Your task to perform on an android device: make emails show in primary in the gmail app Image 0: 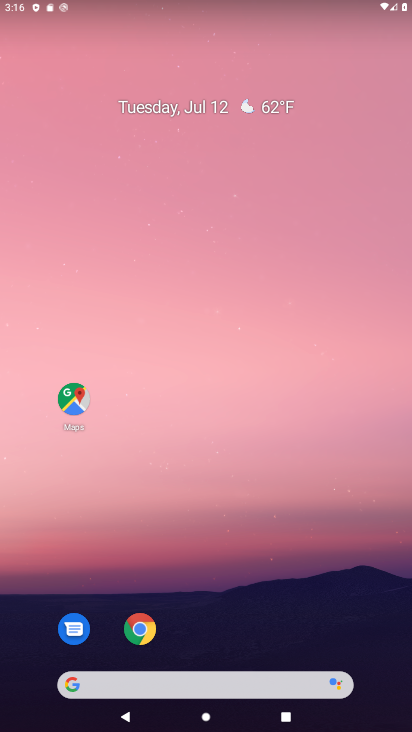
Step 0: drag from (217, 656) to (203, 8)
Your task to perform on an android device: make emails show in primary in the gmail app Image 1: 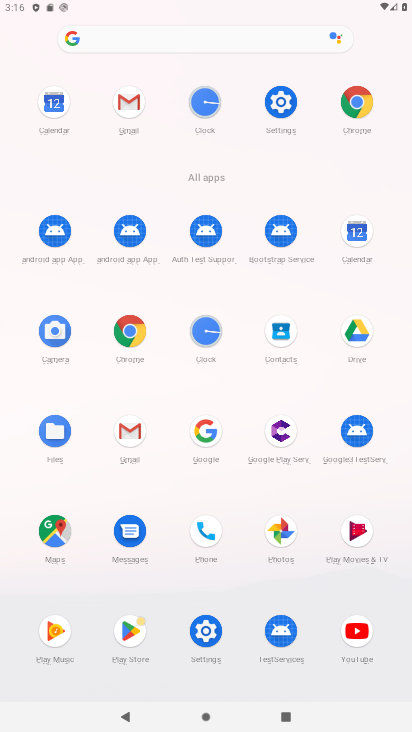
Step 1: click (120, 444)
Your task to perform on an android device: make emails show in primary in the gmail app Image 2: 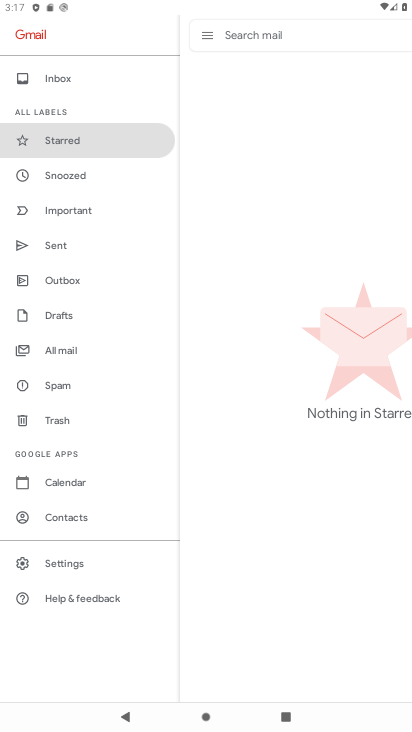
Step 2: click (60, 567)
Your task to perform on an android device: make emails show in primary in the gmail app Image 3: 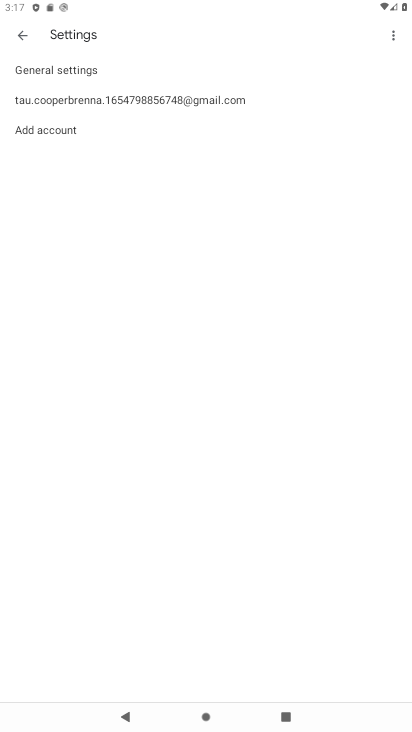
Step 3: click (57, 110)
Your task to perform on an android device: make emails show in primary in the gmail app Image 4: 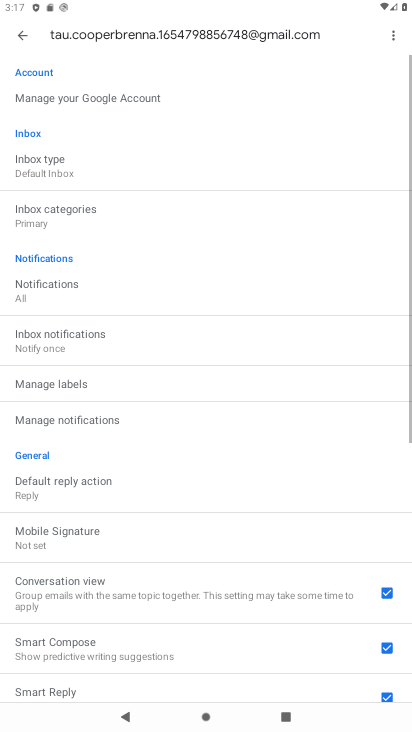
Step 4: click (52, 175)
Your task to perform on an android device: make emails show in primary in the gmail app Image 5: 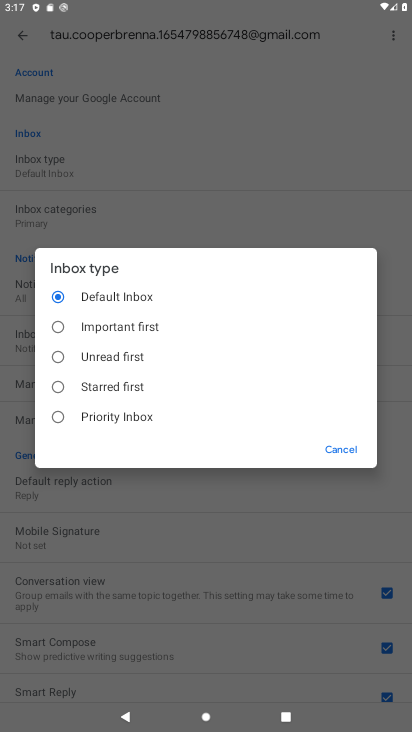
Step 5: click (90, 416)
Your task to perform on an android device: make emails show in primary in the gmail app Image 6: 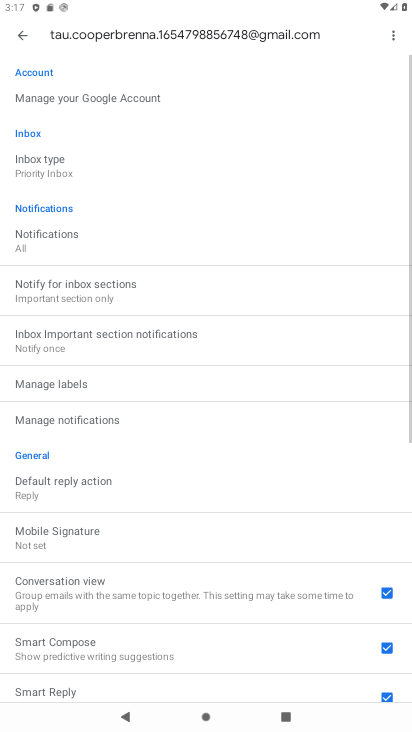
Step 6: drag from (39, 237) to (66, 469)
Your task to perform on an android device: make emails show in primary in the gmail app Image 7: 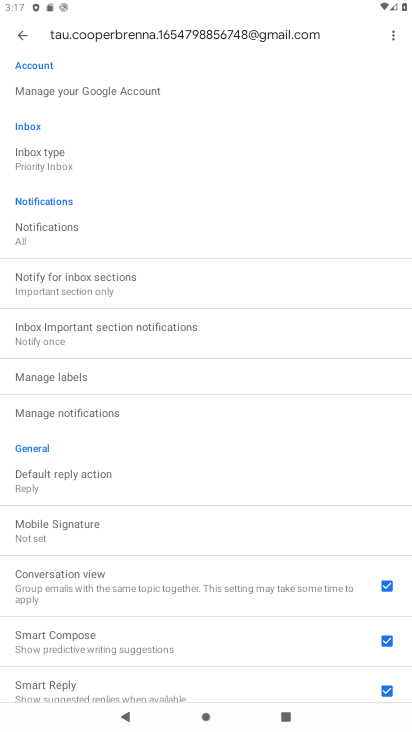
Step 7: click (77, 277)
Your task to perform on an android device: make emails show in primary in the gmail app Image 8: 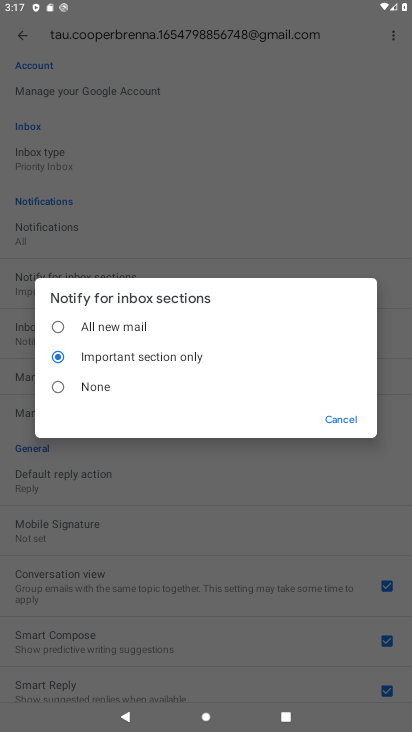
Step 8: click (83, 195)
Your task to perform on an android device: make emails show in primary in the gmail app Image 9: 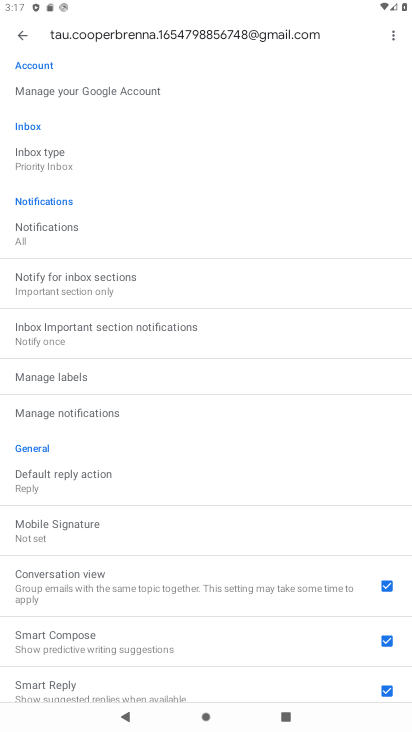
Step 9: click (40, 160)
Your task to perform on an android device: make emails show in primary in the gmail app Image 10: 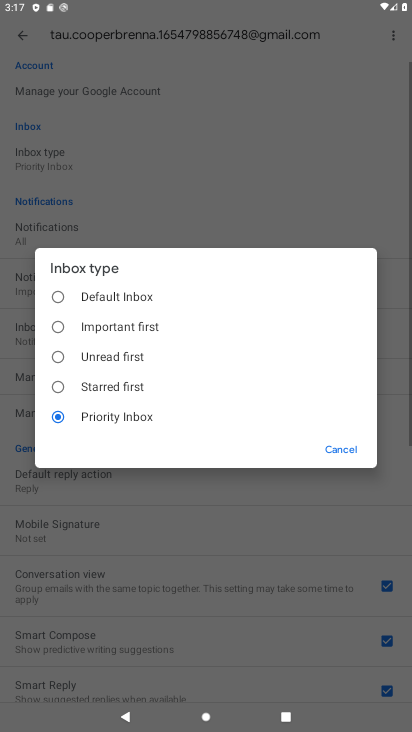
Step 10: click (112, 287)
Your task to perform on an android device: make emails show in primary in the gmail app Image 11: 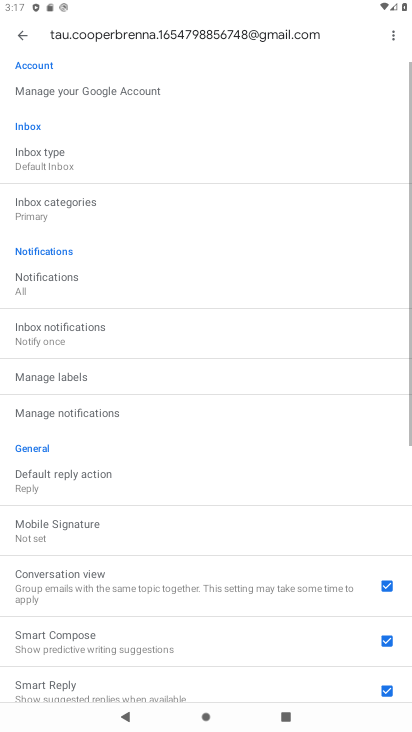
Step 11: click (39, 207)
Your task to perform on an android device: make emails show in primary in the gmail app Image 12: 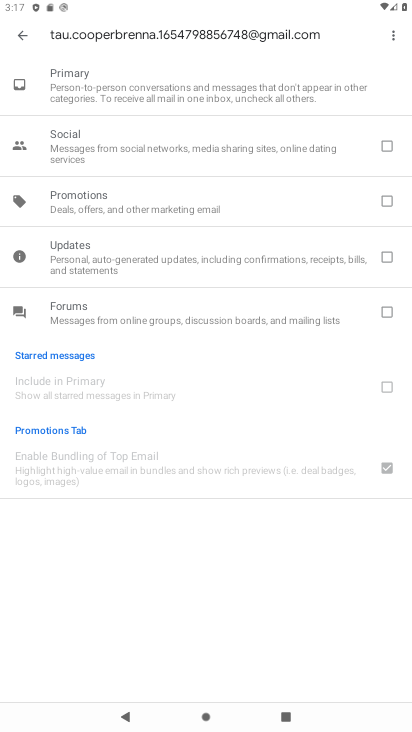
Step 12: click (62, 100)
Your task to perform on an android device: make emails show in primary in the gmail app Image 13: 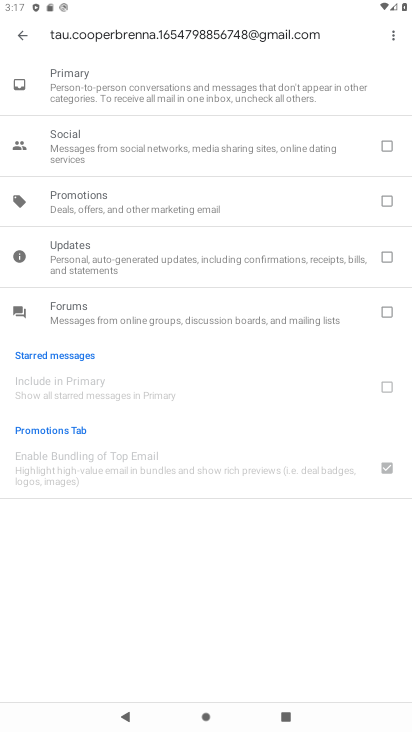
Step 13: click (99, 138)
Your task to perform on an android device: make emails show in primary in the gmail app Image 14: 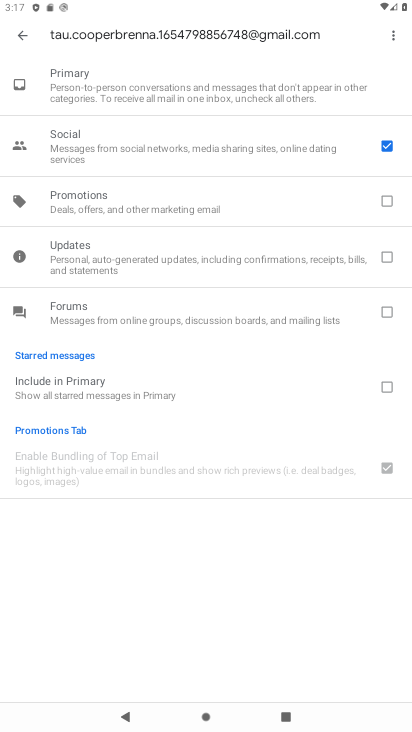
Step 14: click (115, 184)
Your task to perform on an android device: make emails show in primary in the gmail app Image 15: 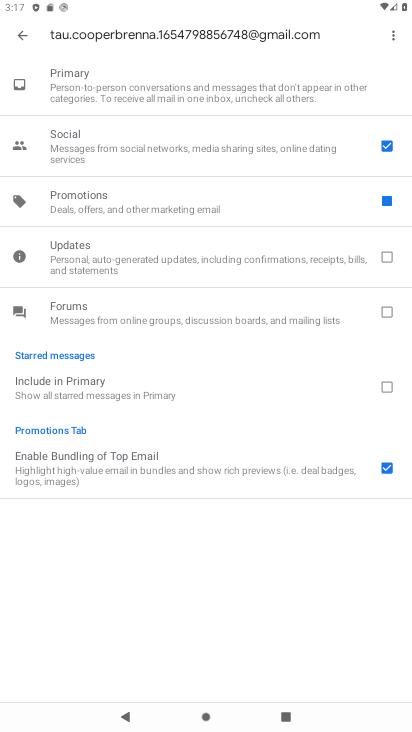
Step 15: click (115, 265)
Your task to perform on an android device: make emails show in primary in the gmail app Image 16: 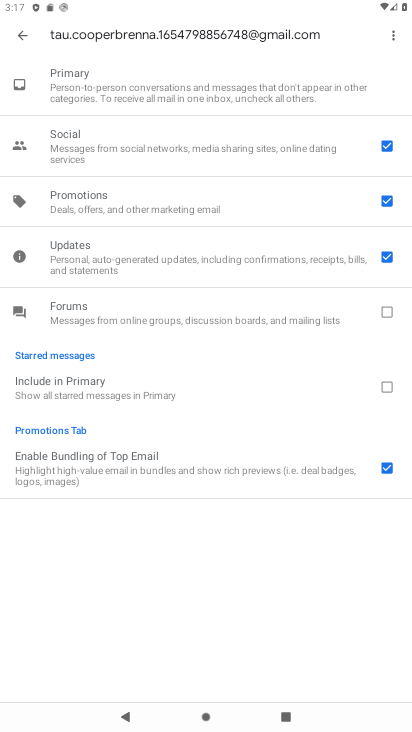
Step 16: click (13, 31)
Your task to perform on an android device: make emails show in primary in the gmail app Image 17: 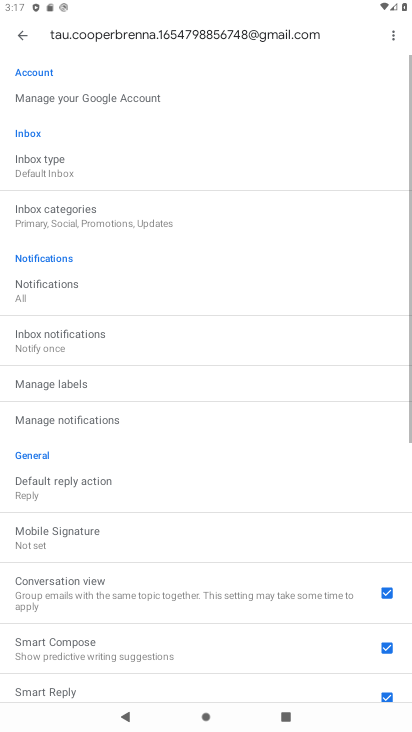
Step 17: click (11, 32)
Your task to perform on an android device: make emails show in primary in the gmail app Image 18: 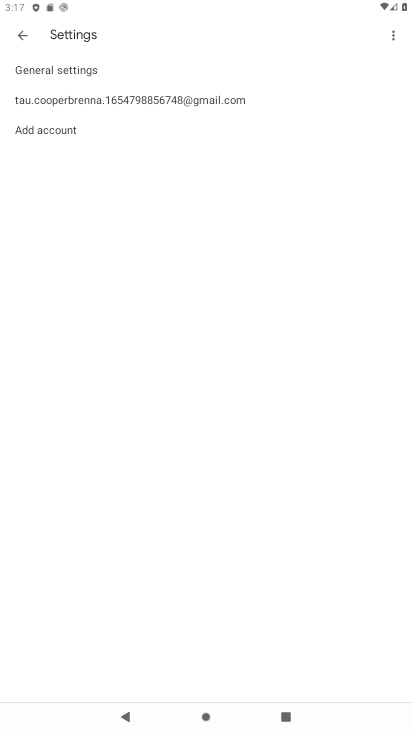
Step 18: click (25, 33)
Your task to perform on an android device: make emails show in primary in the gmail app Image 19: 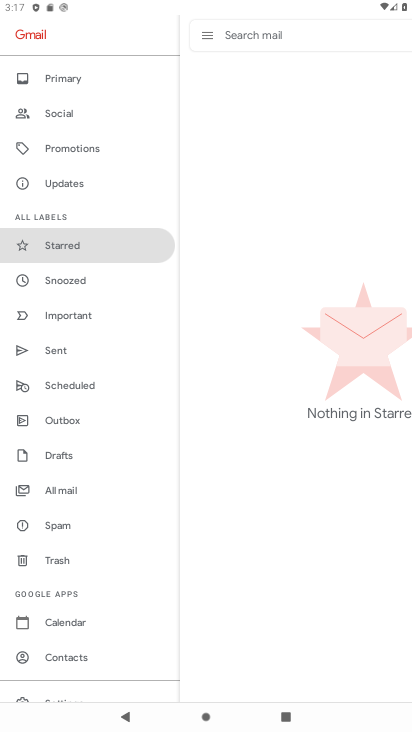
Step 19: click (57, 69)
Your task to perform on an android device: make emails show in primary in the gmail app Image 20: 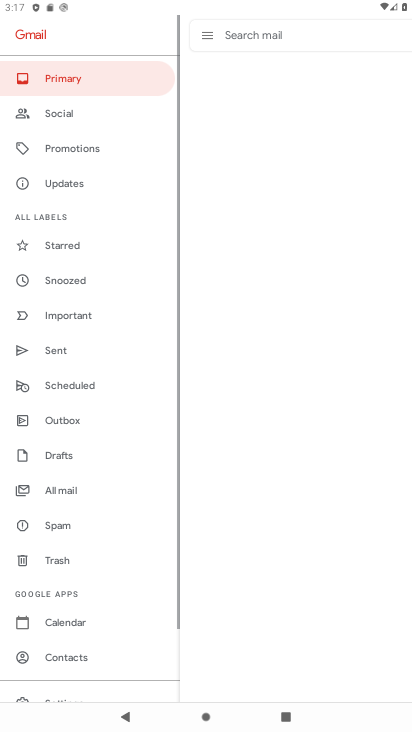
Step 20: task complete